Your task to perform on an android device: Open Chrome and go to settings Image 0: 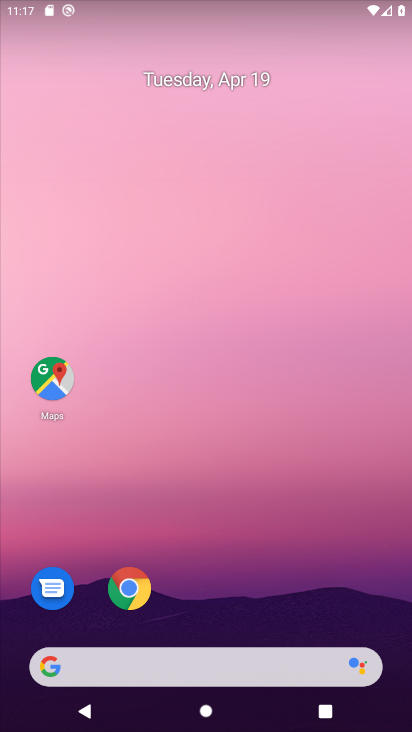
Step 0: click (127, 581)
Your task to perform on an android device: Open Chrome and go to settings Image 1: 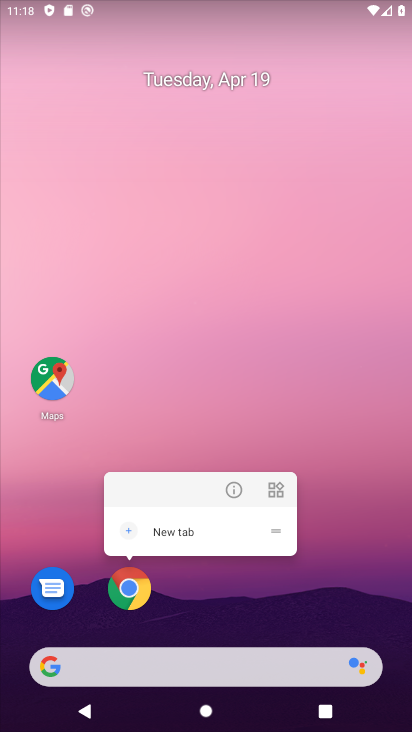
Step 1: click (242, 307)
Your task to perform on an android device: Open Chrome and go to settings Image 2: 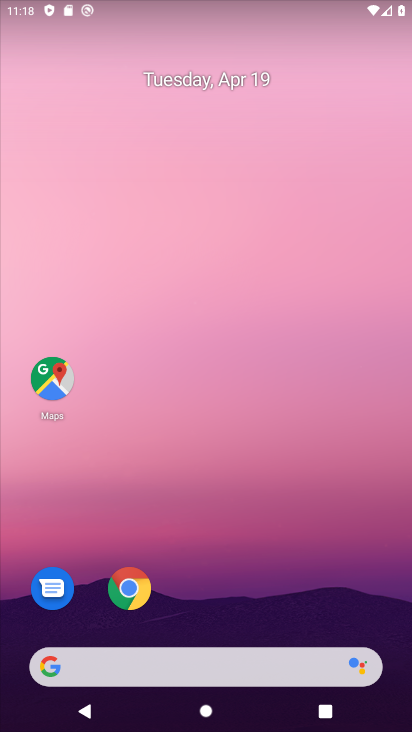
Step 2: click (130, 589)
Your task to perform on an android device: Open Chrome and go to settings Image 3: 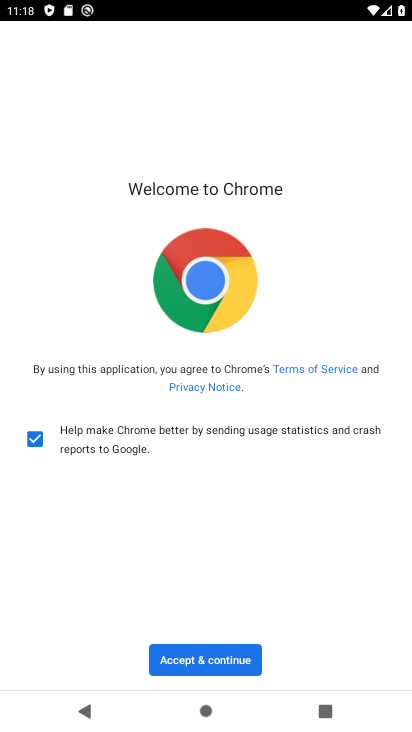
Step 3: click (207, 649)
Your task to perform on an android device: Open Chrome and go to settings Image 4: 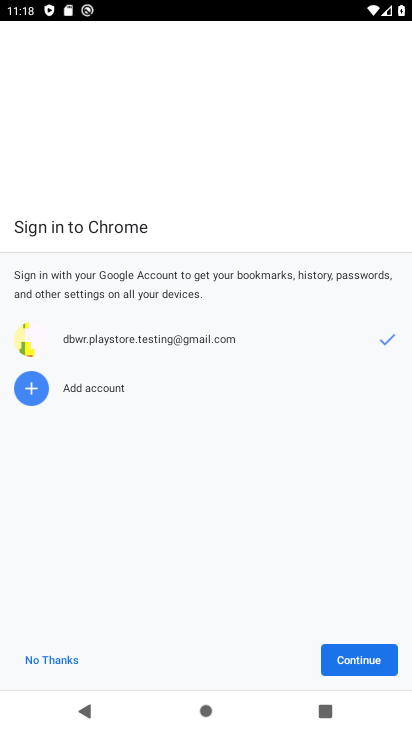
Step 4: click (360, 661)
Your task to perform on an android device: Open Chrome and go to settings Image 5: 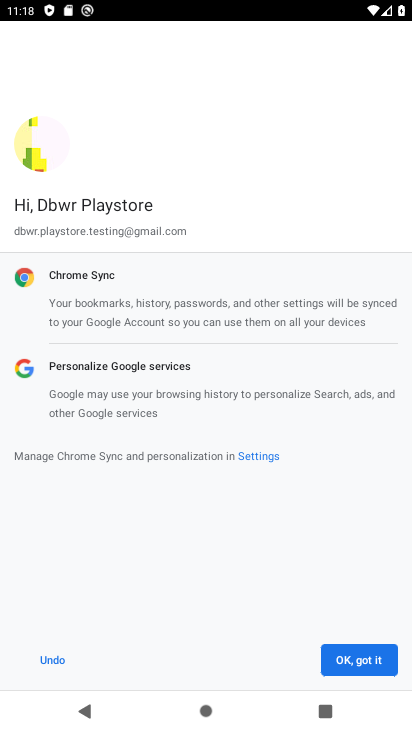
Step 5: click (374, 659)
Your task to perform on an android device: Open Chrome and go to settings Image 6: 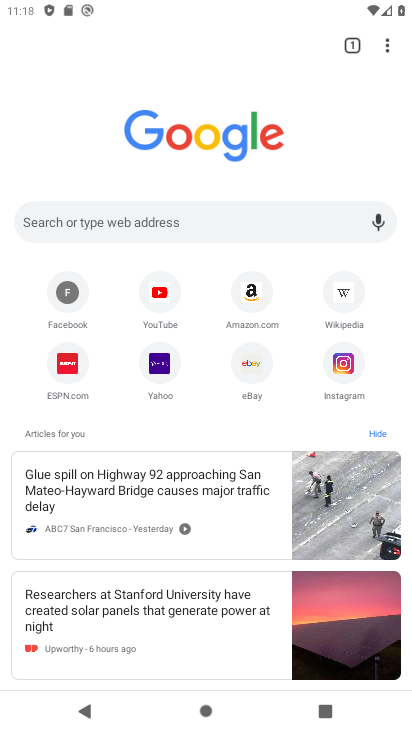
Step 6: click (387, 40)
Your task to perform on an android device: Open Chrome and go to settings Image 7: 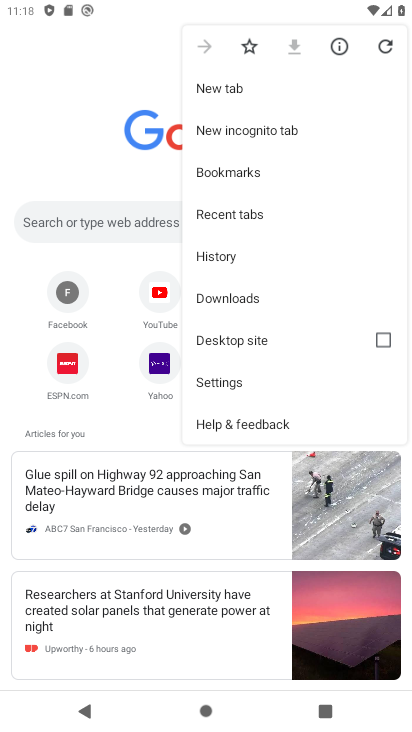
Step 7: click (254, 376)
Your task to perform on an android device: Open Chrome and go to settings Image 8: 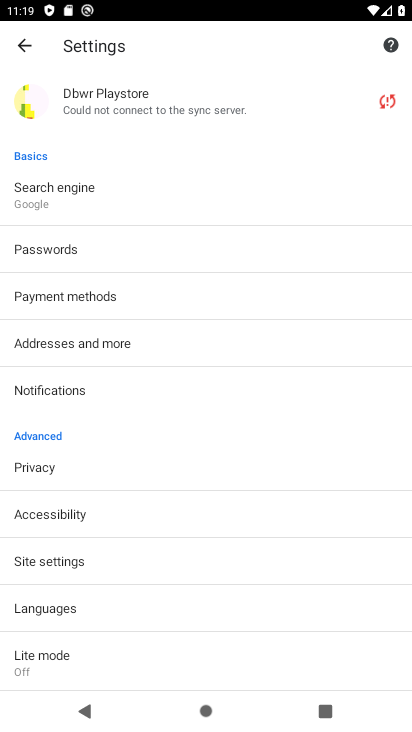
Step 8: task complete